Your task to perform on an android device: Open Google Maps Image 0: 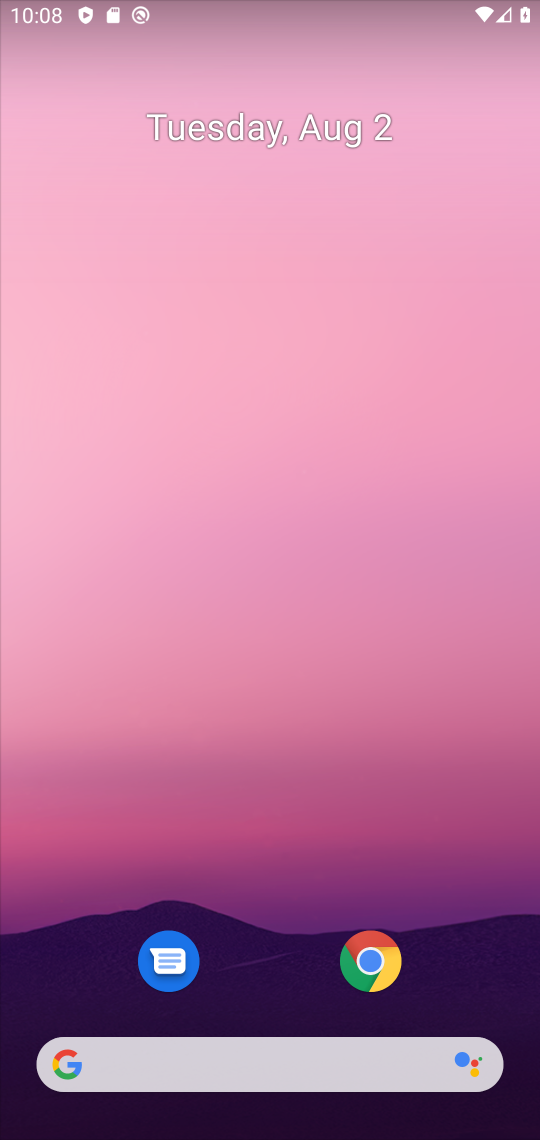
Step 0: press home button
Your task to perform on an android device: Open Google Maps Image 1: 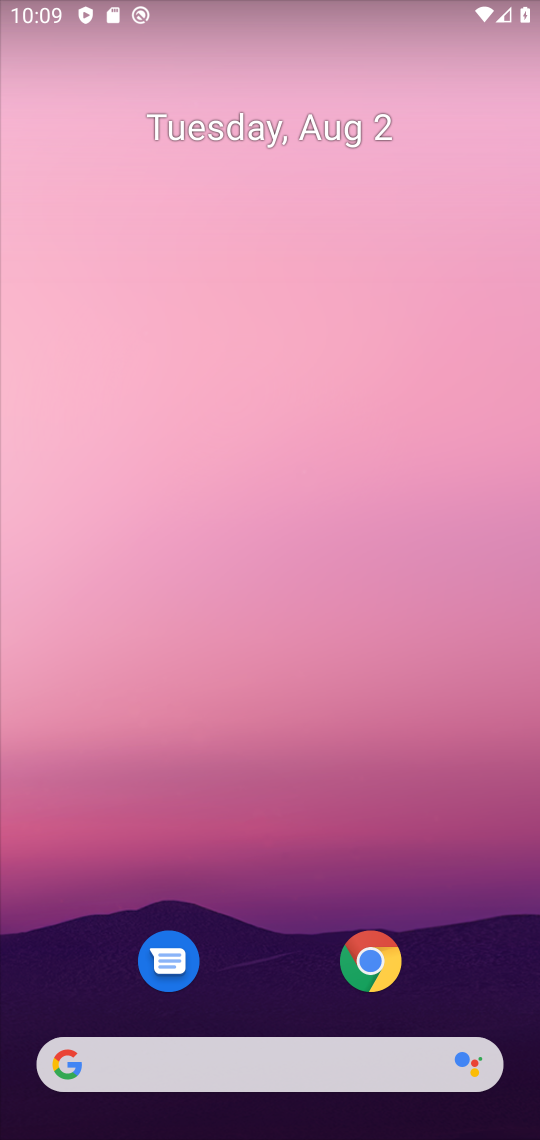
Step 1: drag from (283, 987) to (295, 165)
Your task to perform on an android device: Open Google Maps Image 2: 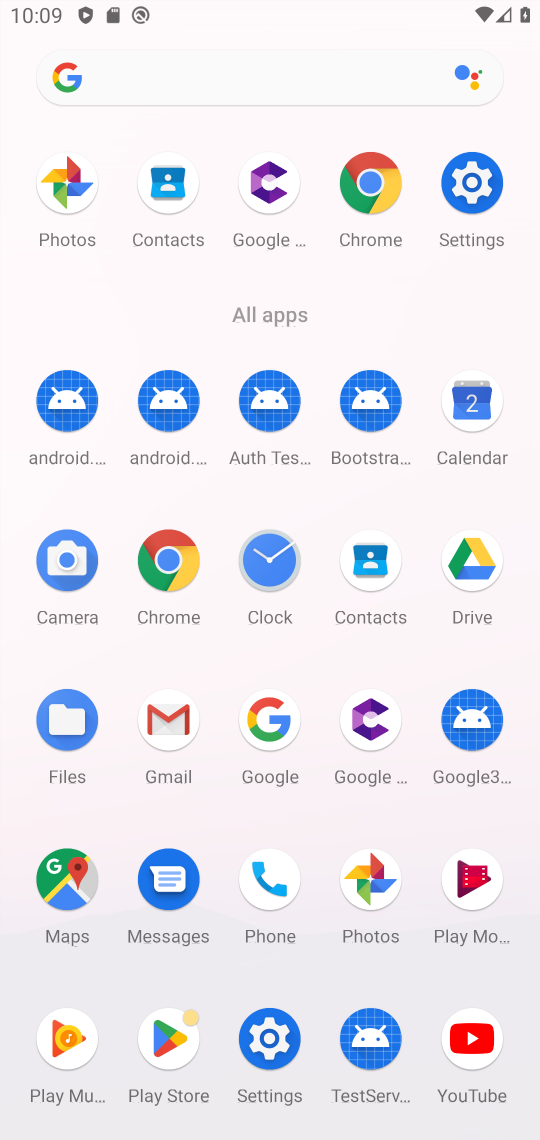
Step 2: click (66, 869)
Your task to perform on an android device: Open Google Maps Image 3: 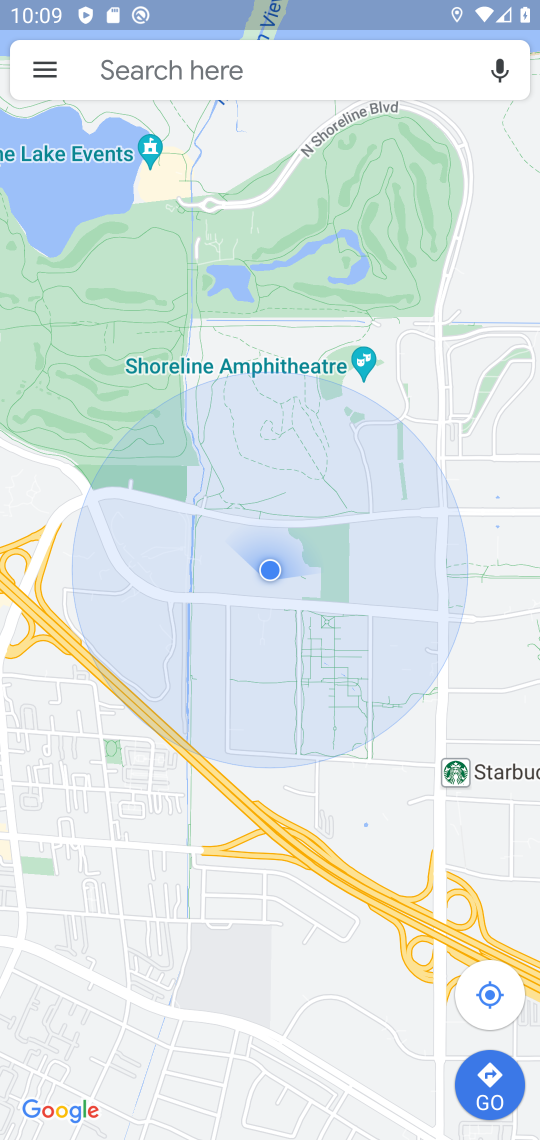
Step 3: task complete